Your task to perform on an android device: open chrome privacy settings Image 0: 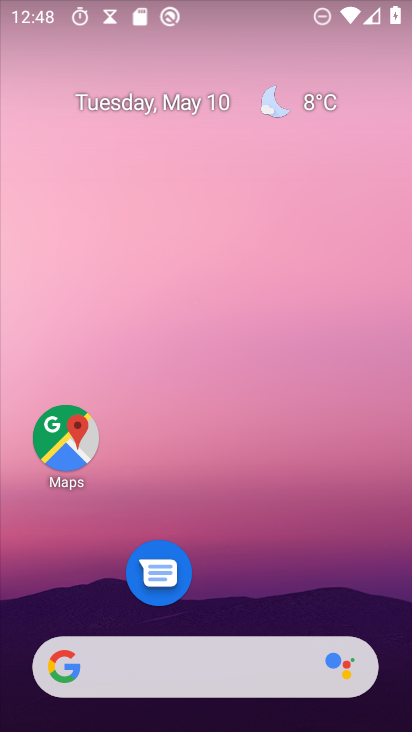
Step 0: drag from (254, 614) to (355, 65)
Your task to perform on an android device: open chrome privacy settings Image 1: 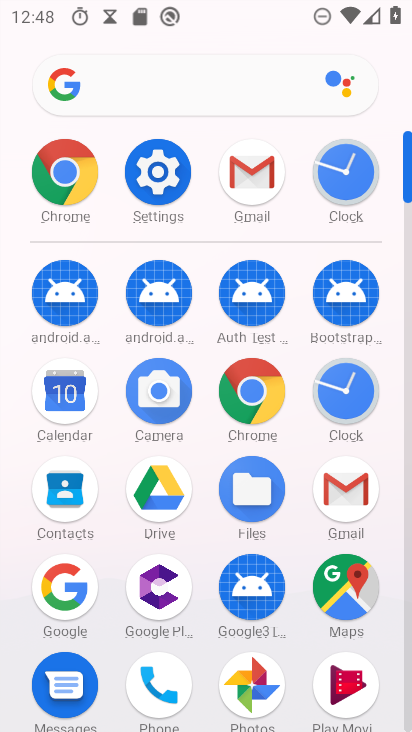
Step 1: click (163, 182)
Your task to perform on an android device: open chrome privacy settings Image 2: 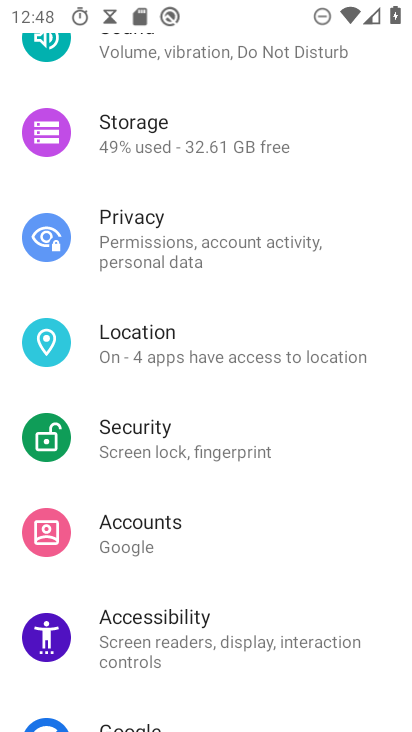
Step 2: press home button
Your task to perform on an android device: open chrome privacy settings Image 3: 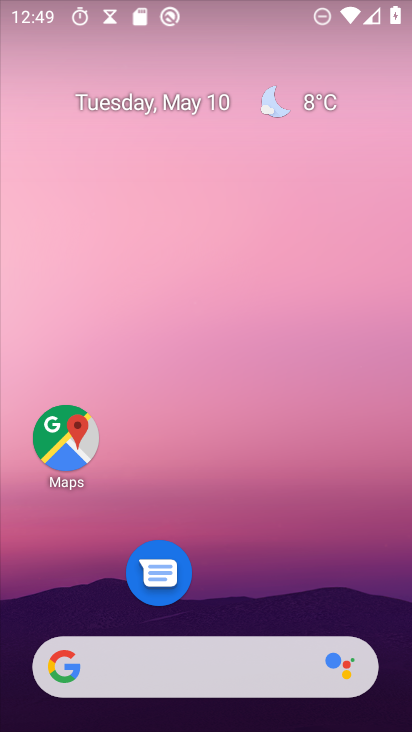
Step 3: drag from (212, 594) to (290, 0)
Your task to perform on an android device: open chrome privacy settings Image 4: 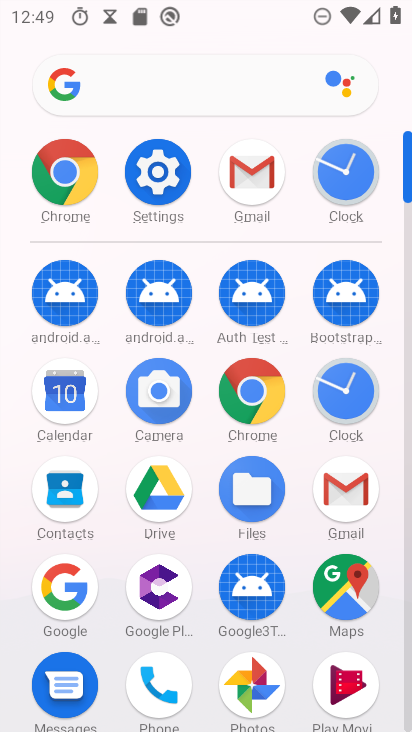
Step 4: click (256, 399)
Your task to perform on an android device: open chrome privacy settings Image 5: 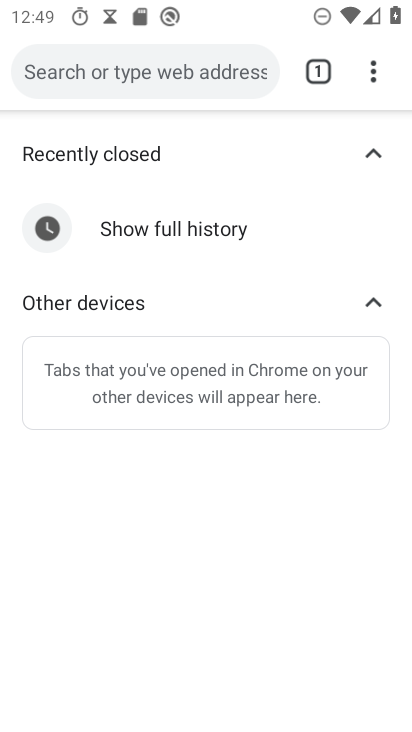
Step 5: click (374, 75)
Your task to perform on an android device: open chrome privacy settings Image 6: 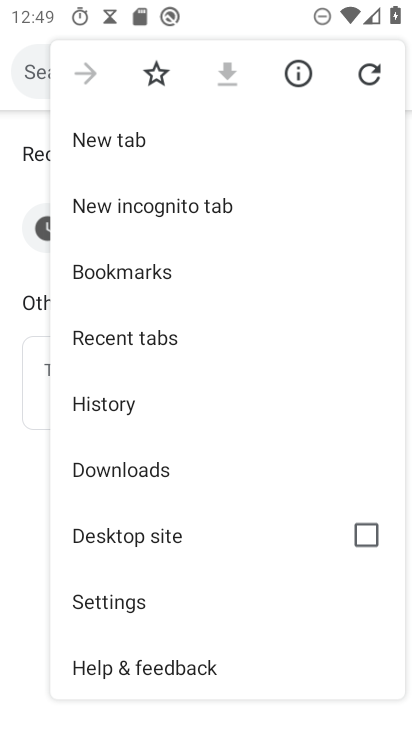
Step 6: click (131, 601)
Your task to perform on an android device: open chrome privacy settings Image 7: 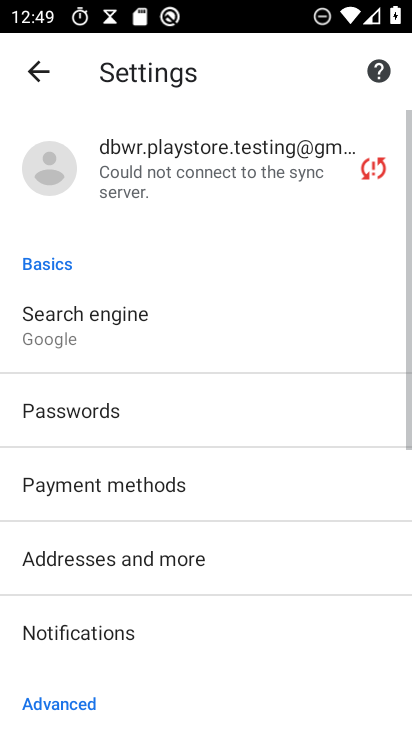
Step 7: drag from (108, 640) to (161, 274)
Your task to perform on an android device: open chrome privacy settings Image 8: 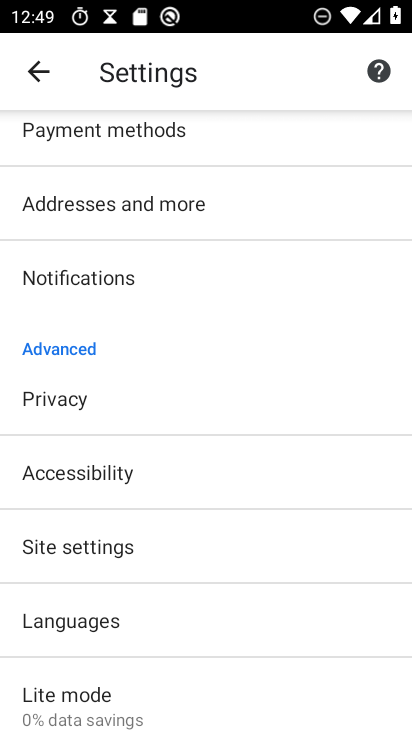
Step 8: click (94, 412)
Your task to perform on an android device: open chrome privacy settings Image 9: 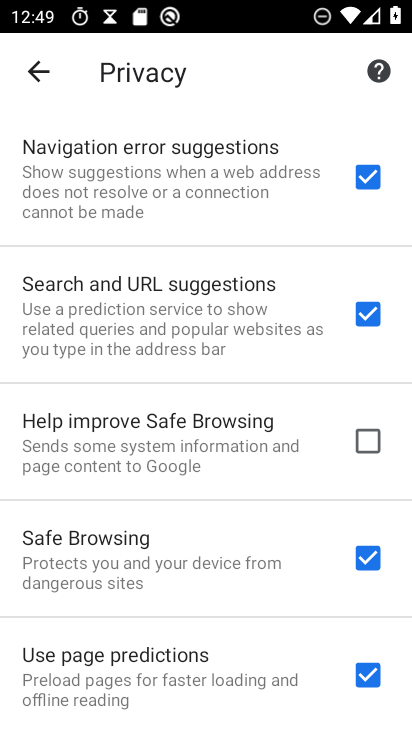
Step 9: task complete